Your task to perform on an android device: Turn on the flashlight Image 0: 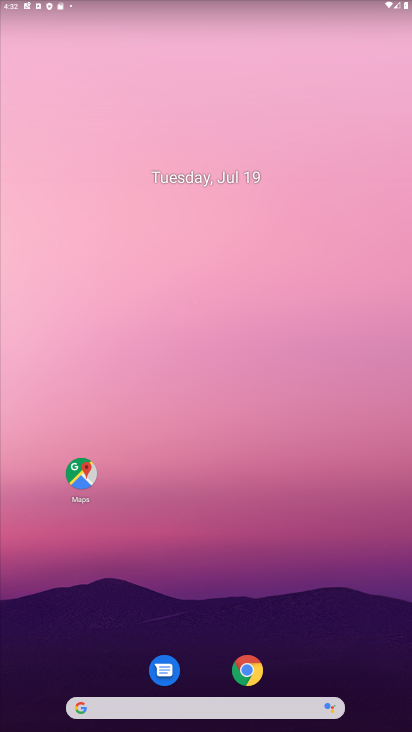
Step 0: drag from (237, 11) to (266, 444)
Your task to perform on an android device: Turn on the flashlight Image 1: 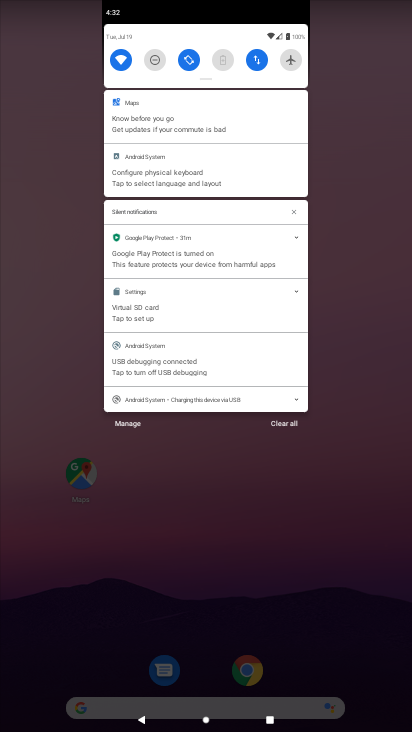
Step 1: task complete